Your task to perform on an android device: Show me productivity apps on the Play Store Image 0: 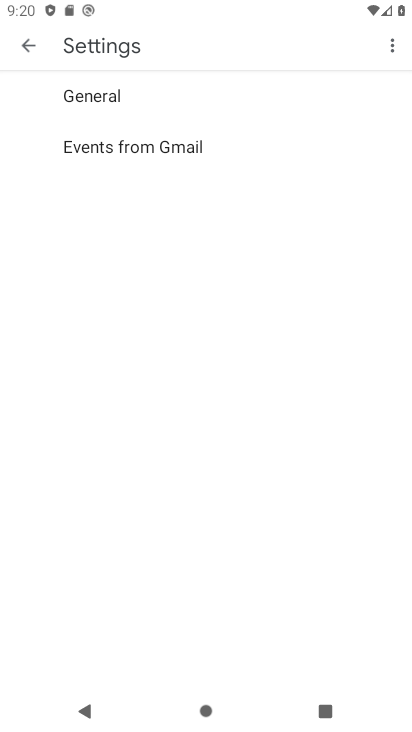
Step 0: press home button
Your task to perform on an android device: Show me productivity apps on the Play Store Image 1: 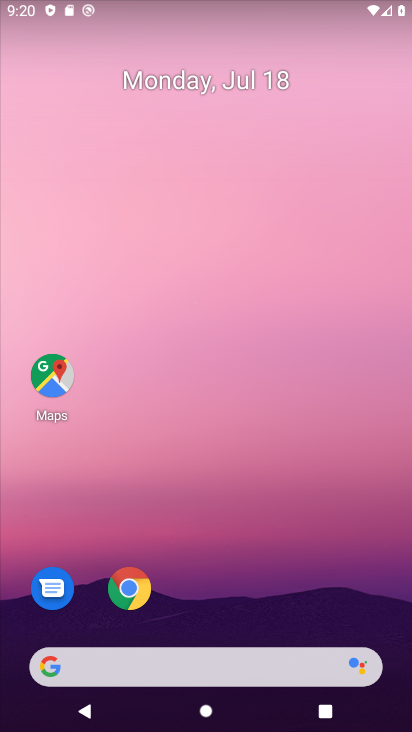
Step 1: drag from (129, 687) to (210, 152)
Your task to perform on an android device: Show me productivity apps on the Play Store Image 2: 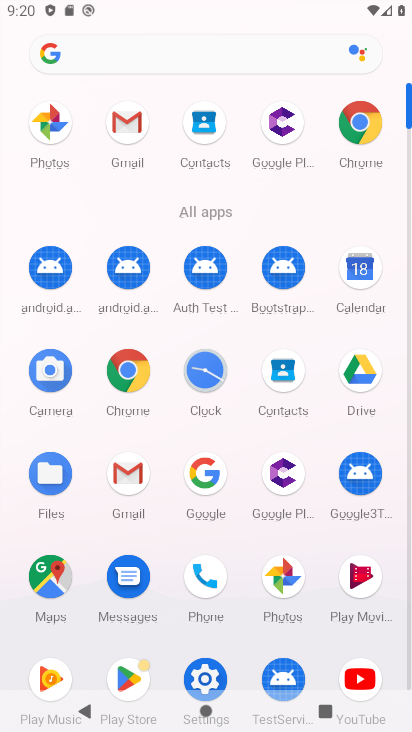
Step 2: drag from (145, 594) to (188, 352)
Your task to perform on an android device: Show me productivity apps on the Play Store Image 3: 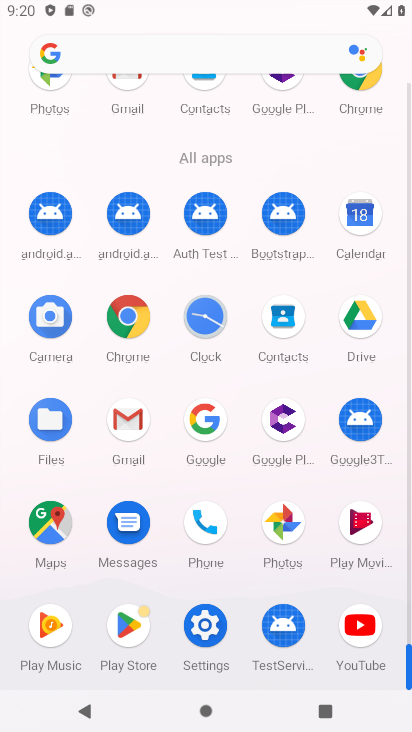
Step 3: click (139, 616)
Your task to perform on an android device: Show me productivity apps on the Play Store Image 4: 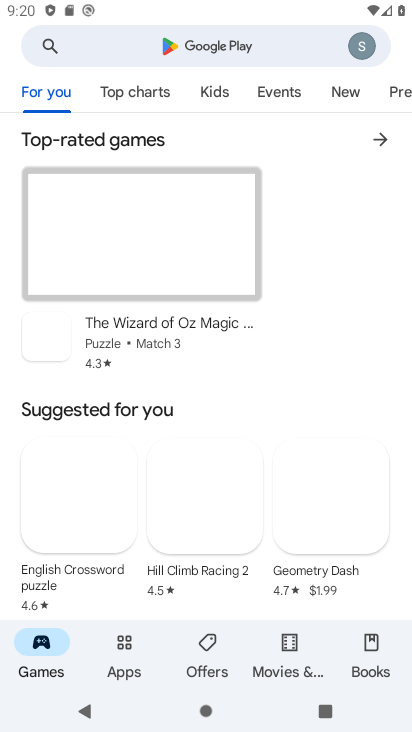
Step 4: click (132, 640)
Your task to perform on an android device: Show me productivity apps on the Play Store Image 5: 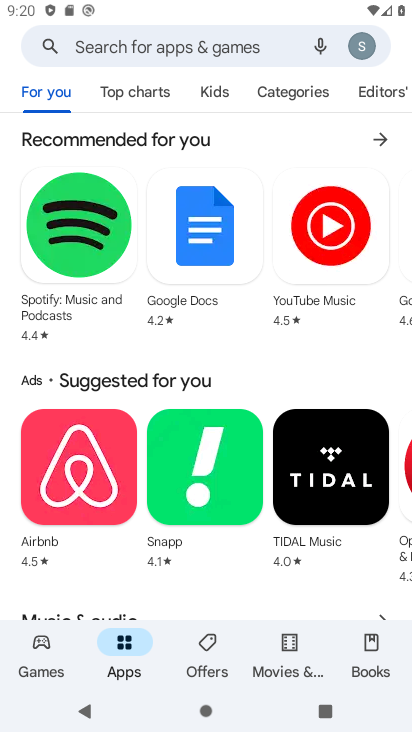
Step 5: click (271, 96)
Your task to perform on an android device: Show me productivity apps on the Play Store Image 6: 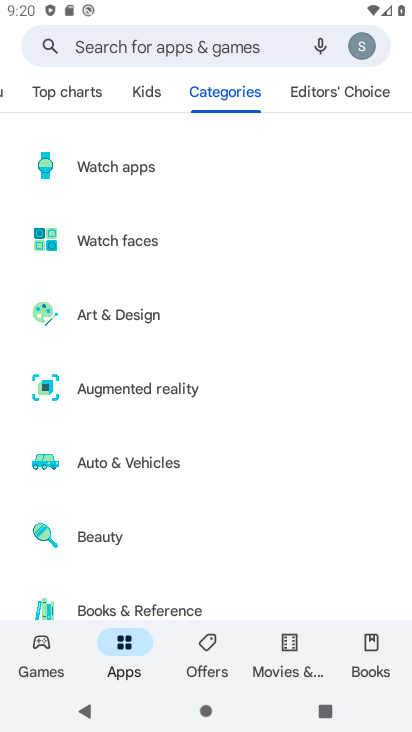
Step 6: drag from (185, 537) to (242, 119)
Your task to perform on an android device: Show me productivity apps on the Play Store Image 7: 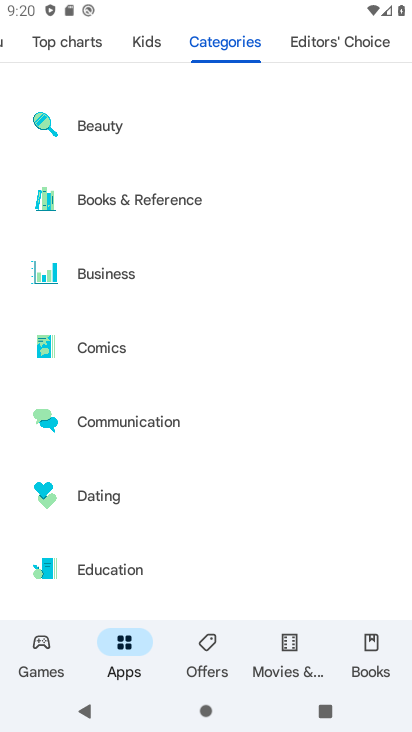
Step 7: drag from (169, 507) to (223, 90)
Your task to perform on an android device: Show me productivity apps on the Play Store Image 8: 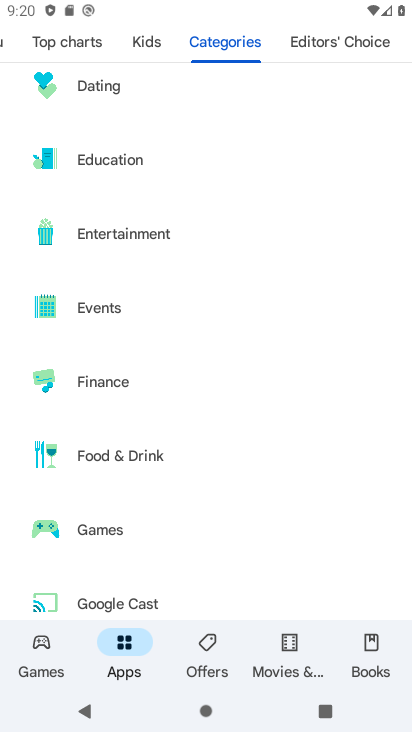
Step 8: drag from (96, 504) to (173, 173)
Your task to perform on an android device: Show me productivity apps on the Play Store Image 9: 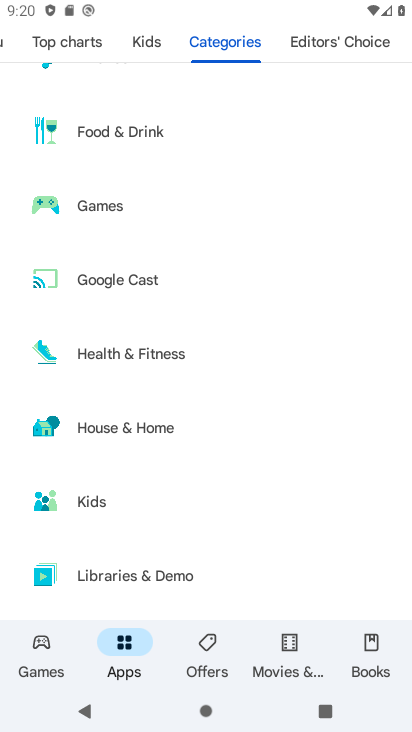
Step 9: drag from (168, 514) to (256, 137)
Your task to perform on an android device: Show me productivity apps on the Play Store Image 10: 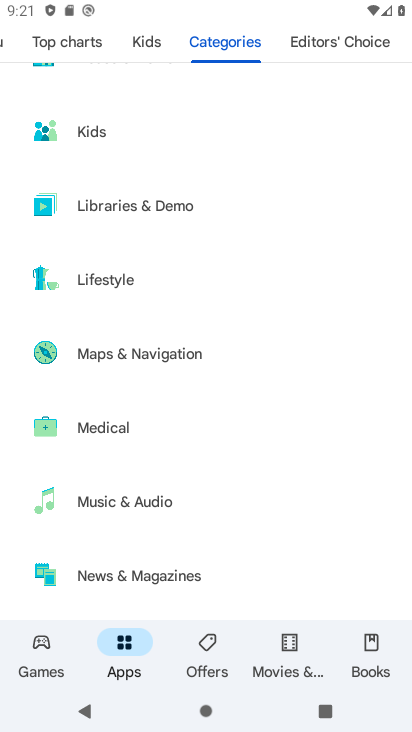
Step 10: drag from (127, 559) to (199, 171)
Your task to perform on an android device: Show me productivity apps on the Play Store Image 11: 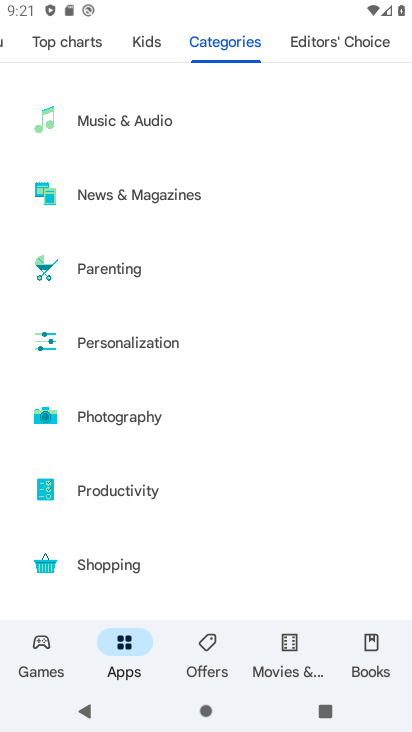
Step 11: click (166, 486)
Your task to perform on an android device: Show me productivity apps on the Play Store Image 12: 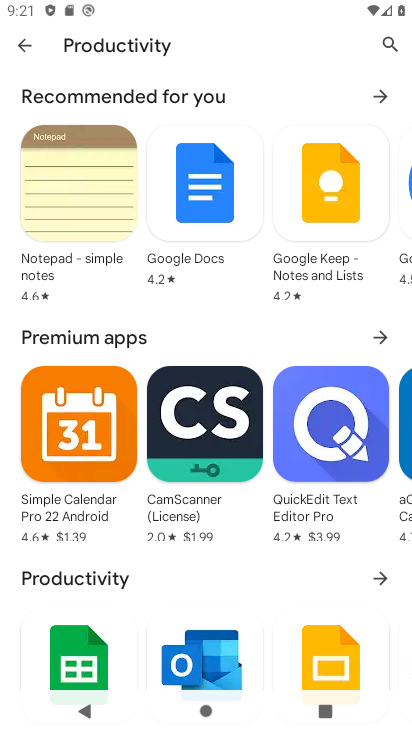
Step 12: task complete